Your task to perform on an android device: Open the stopwatch Image 0: 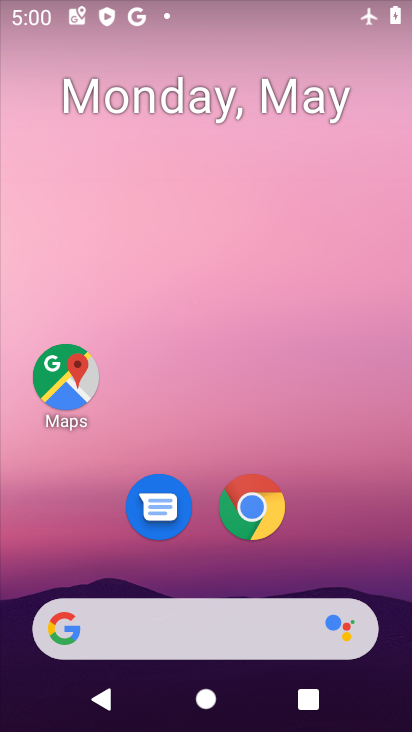
Step 0: drag from (339, 547) to (314, 42)
Your task to perform on an android device: Open the stopwatch Image 1: 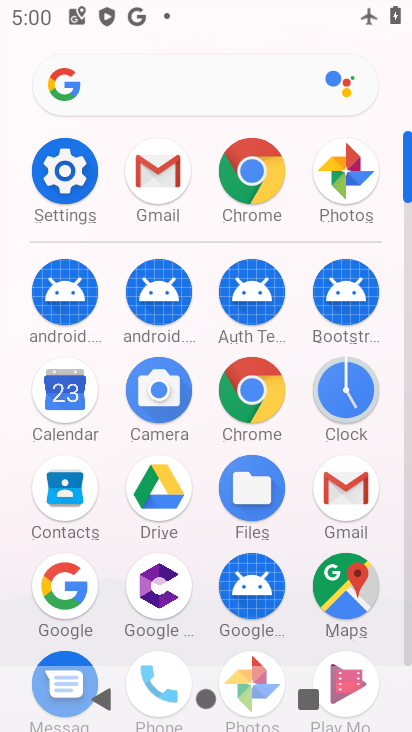
Step 1: click (352, 412)
Your task to perform on an android device: Open the stopwatch Image 2: 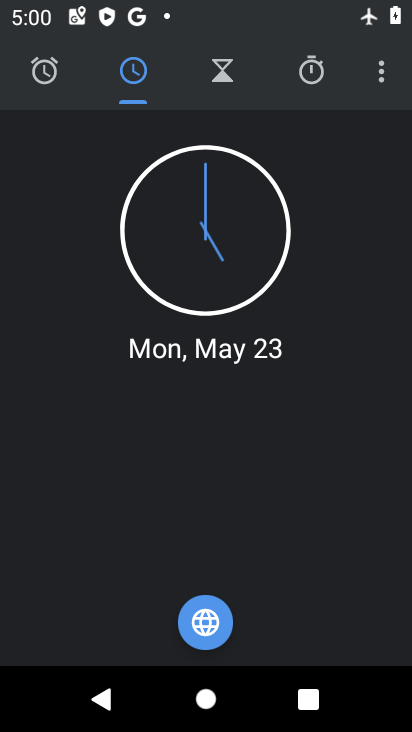
Step 2: click (314, 83)
Your task to perform on an android device: Open the stopwatch Image 3: 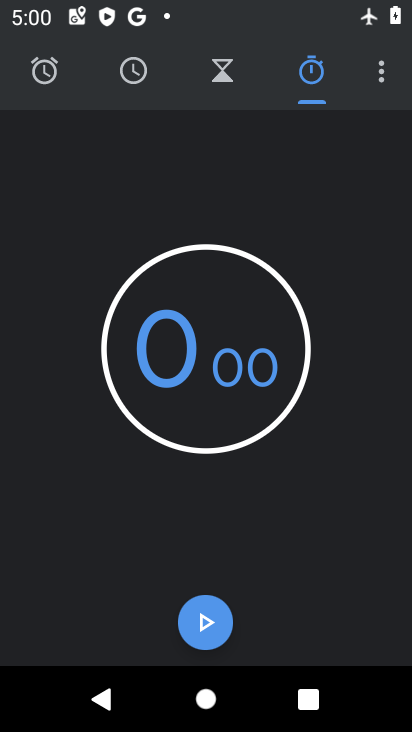
Step 3: click (205, 618)
Your task to perform on an android device: Open the stopwatch Image 4: 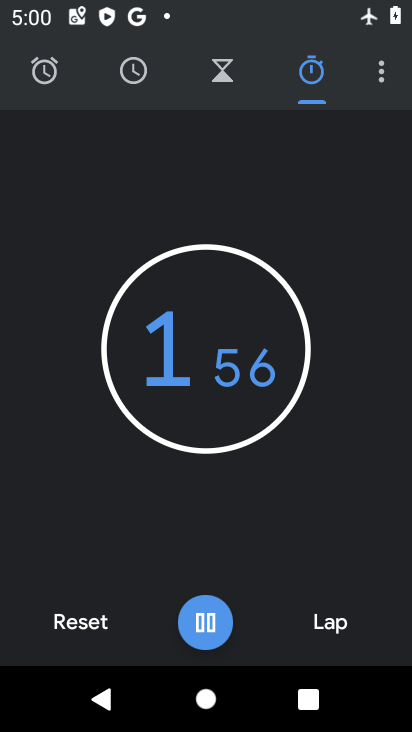
Step 4: task complete